Your task to perform on an android device: Open display settings Image 0: 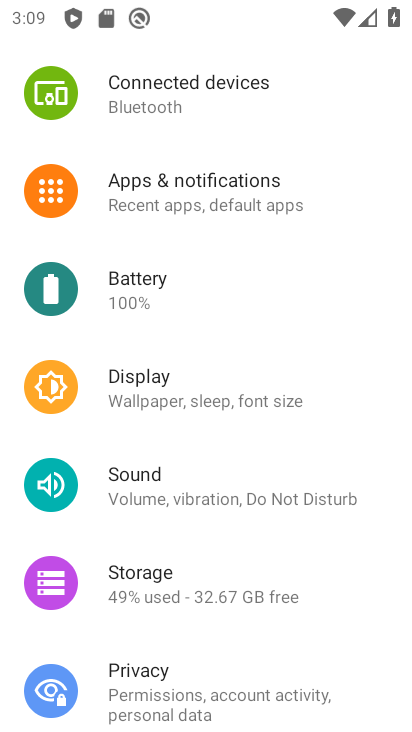
Step 0: click (134, 389)
Your task to perform on an android device: Open display settings Image 1: 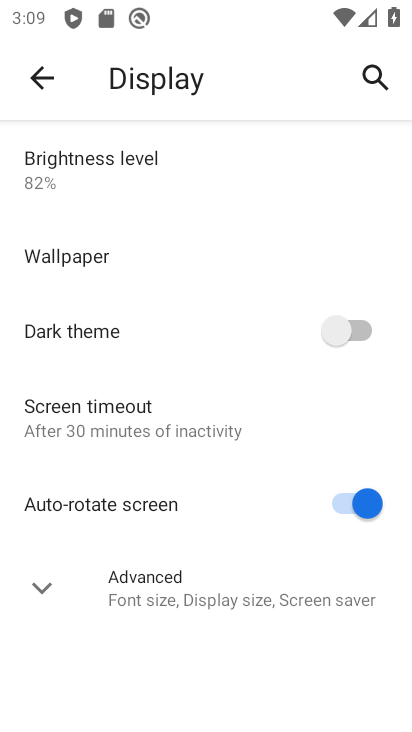
Step 1: task complete